Your task to perform on an android device: move an email to a new category in the gmail app Image 0: 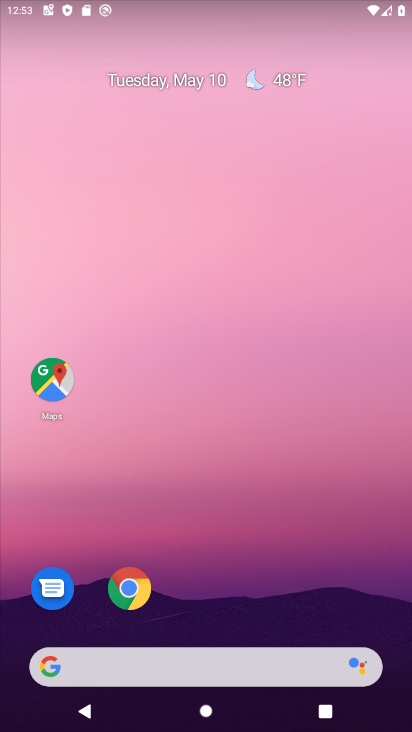
Step 0: click (353, 225)
Your task to perform on an android device: move an email to a new category in the gmail app Image 1: 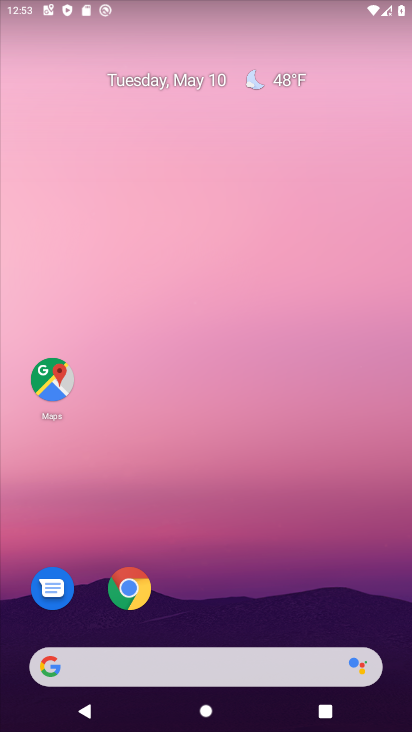
Step 1: drag from (256, 603) to (276, 166)
Your task to perform on an android device: move an email to a new category in the gmail app Image 2: 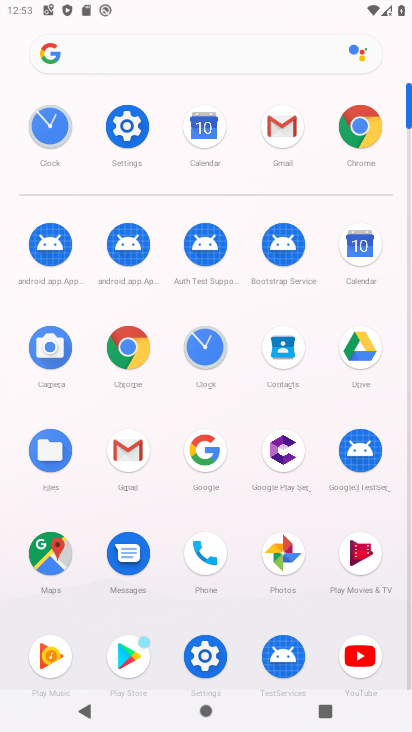
Step 2: click (292, 122)
Your task to perform on an android device: move an email to a new category in the gmail app Image 3: 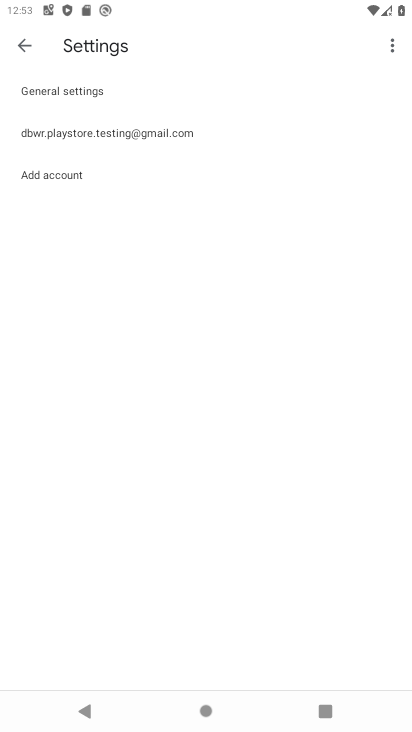
Step 3: press back button
Your task to perform on an android device: move an email to a new category in the gmail app Image 4: 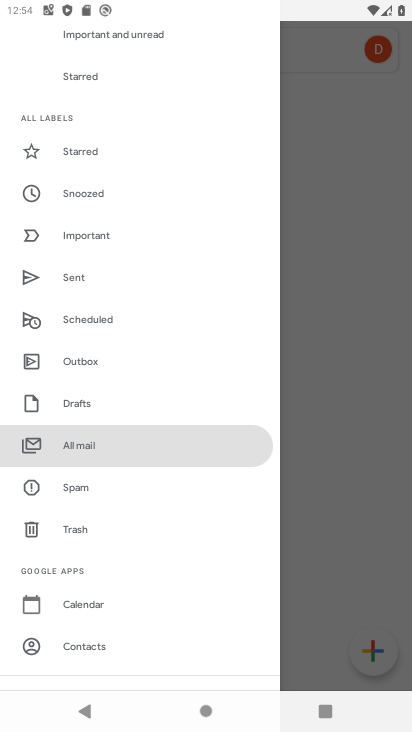
Step 4: click (193, 436)
Your task to perform on an android device: move an email to a new category in the gmail app Image 5: 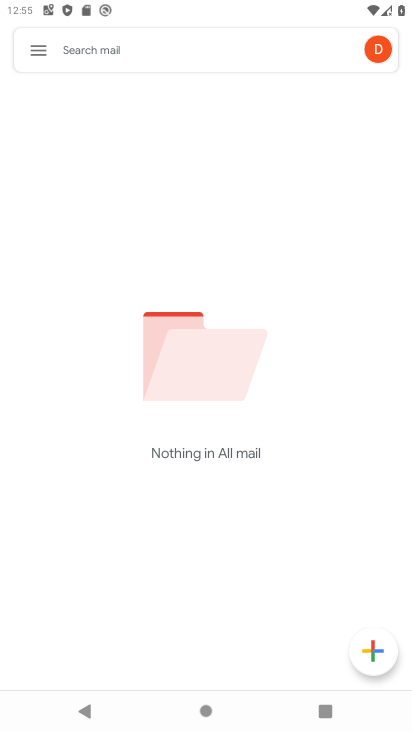
Step 5: task complete